Your task to perform on an android device: check out phone information Image 0: 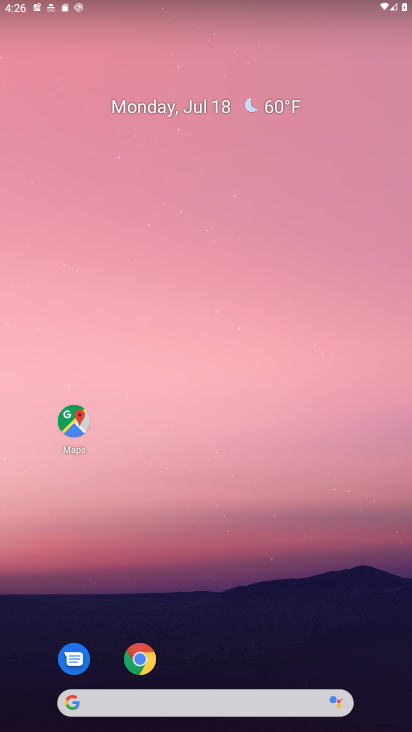
Step 0: drag from (295, 693) to (260, 4)
Your task to perform on an android device: check out phone information Image 1: 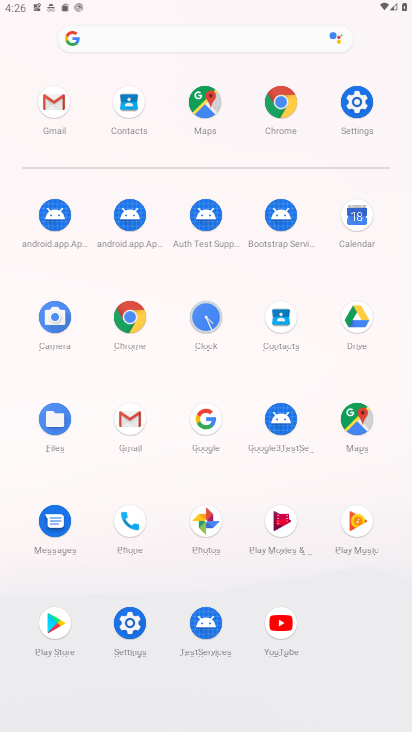
Step 1: click (357, 97)
Your task to perform on an android device: check out phone information Image 2: 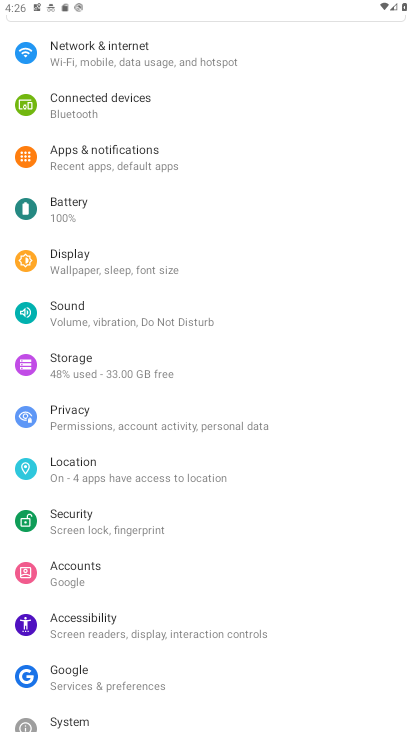
Step 2: drag from (176, 674) to (162, 5)
Your task to perform on an android device: check out phone information Image 3: 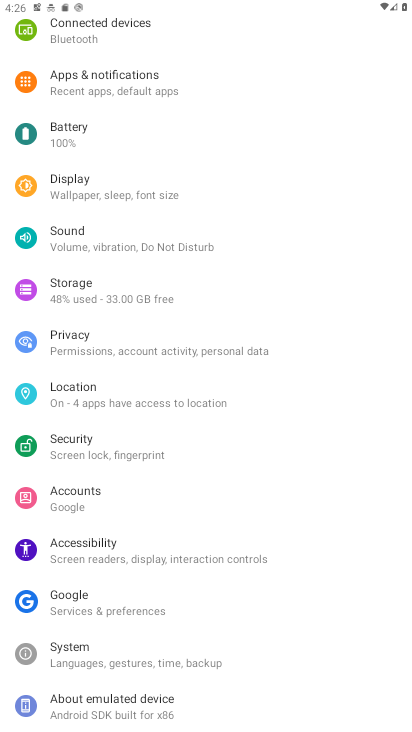
Step 3: click (136, 712)
Your task to perform on an android device: check out phone information Image 4: 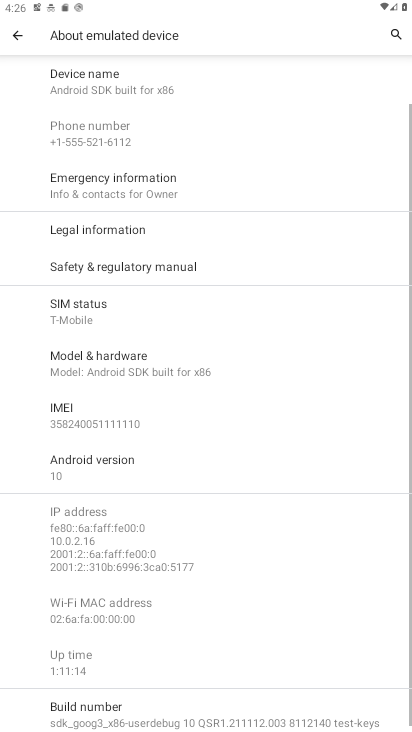
Step 4: task complete